Your task to perform on an android device: Open Maps and search for coffee Image 0: 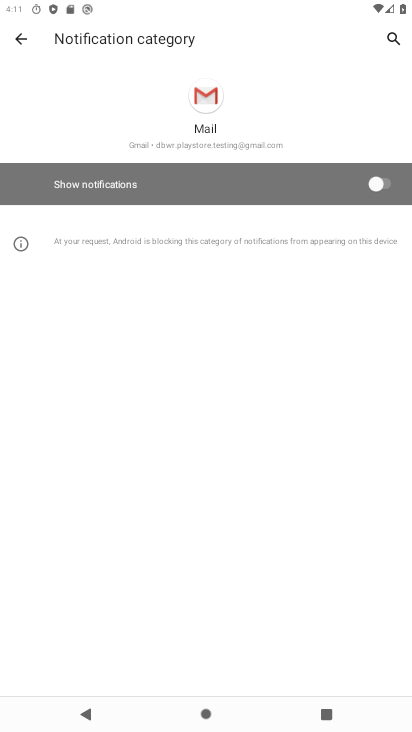
Step 0: press home button
Your task to perform on an android device: Open Maps and search for coffee Image 1: 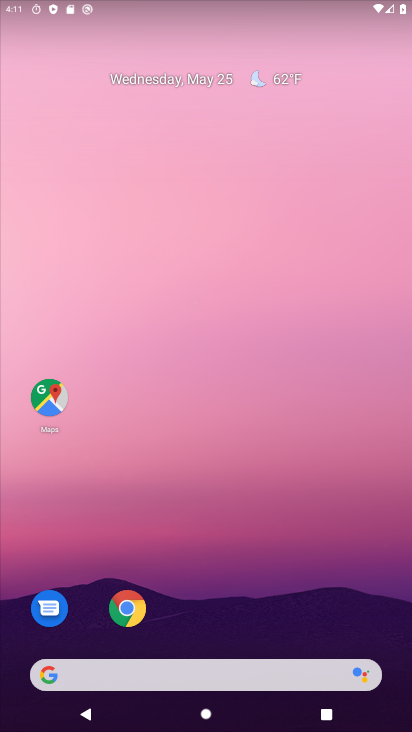
Step 1: click (50, 398)
Your task to perform on an android device: Open Maps and search for coffee Image 2: 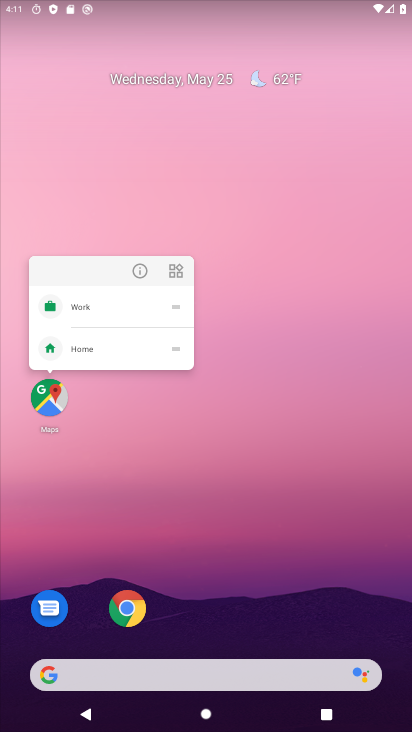
Step 2: click (48, 398)
Your task to perform on an android device: Open Maps and search for coffee Image 3: 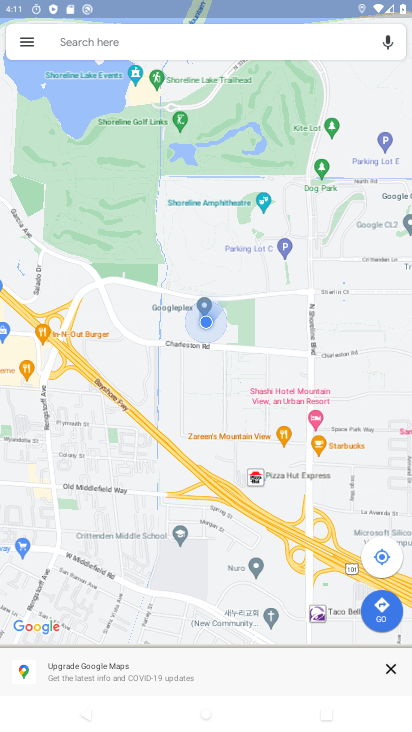
Step 3: click (167, 48)
Your task to perform on an android device: Open Maps and search for coffee Image 4: 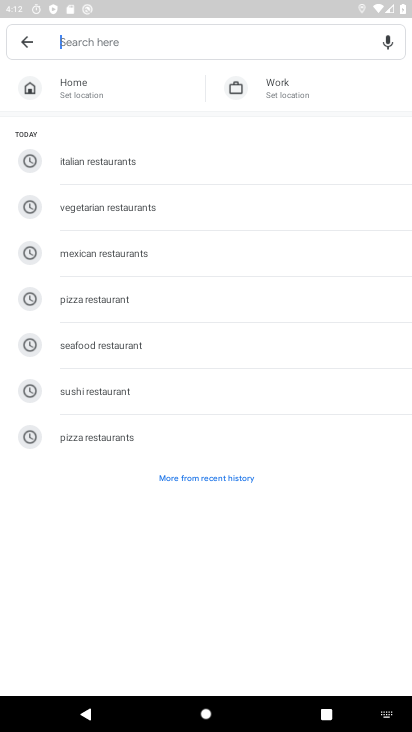
Step 4: type "coffee"
Your task to perform on an android device: Open Maps and search for coffee Image 5: 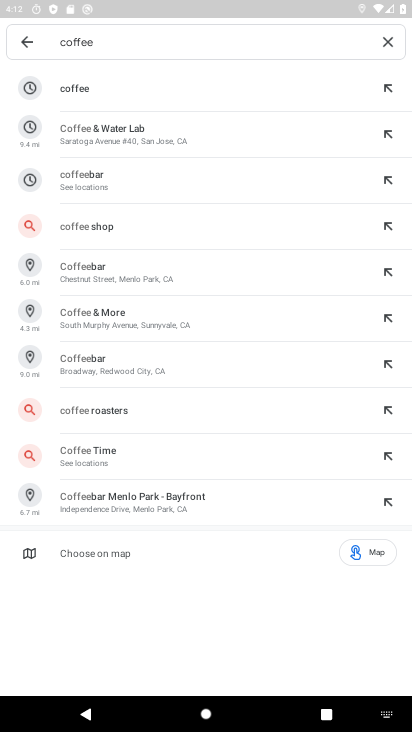
Step 5: click (84, 90)
Your task to perform on an android device: Open Maps and search for coffee Image 6: 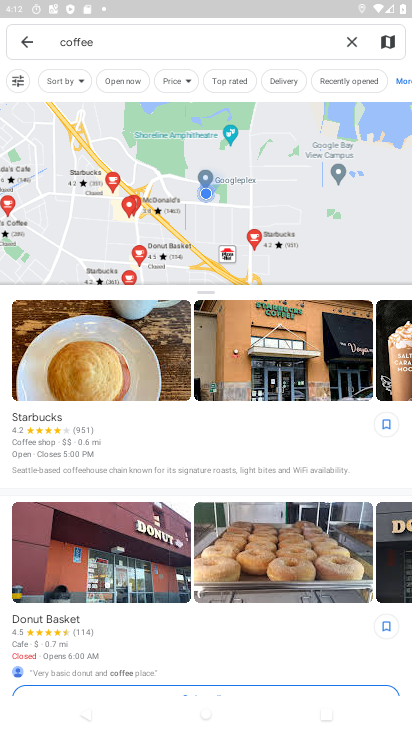
Step 6: task complete